Your task to perform on an android device: find photos in the google photos app Image 0: 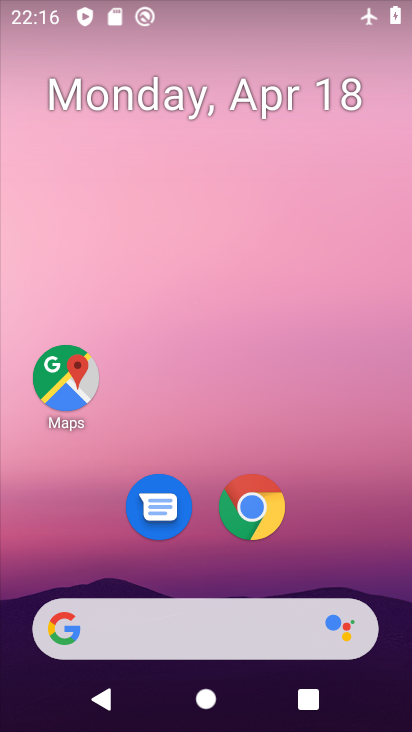
Step 0: drag from (354, 542) to (342, 67)
Your task to perform on an android device: find photos in the google photos app Image 1: 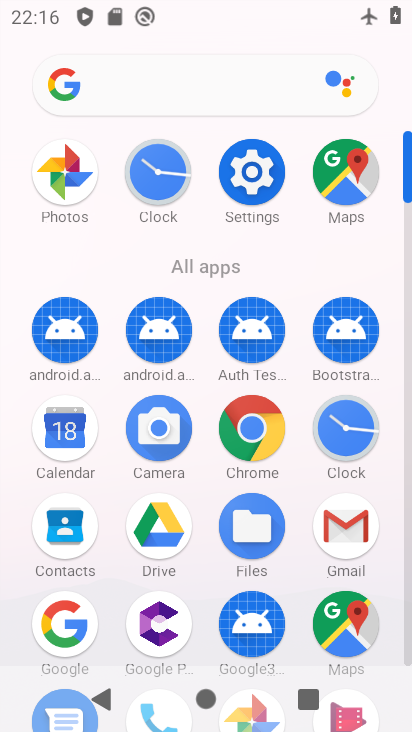
Step 1: drag from (200, 566) to (207, 428)
Your task to perform on an android device: find photos in the google photos app Image 2: 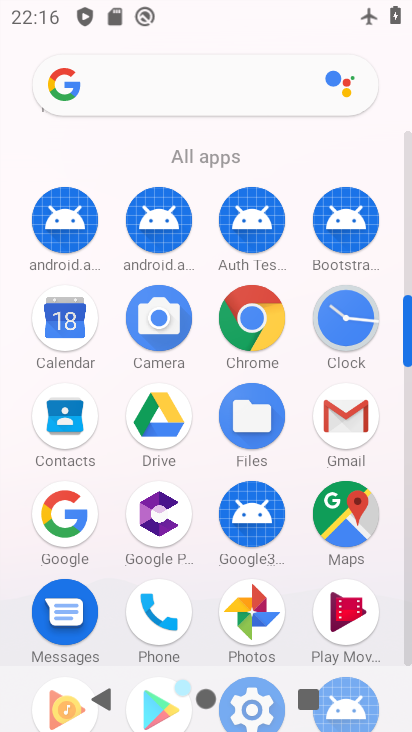
Step 2: click (253, 590)
Your task to perform on an android device: find photos in the google photos app Image 3: 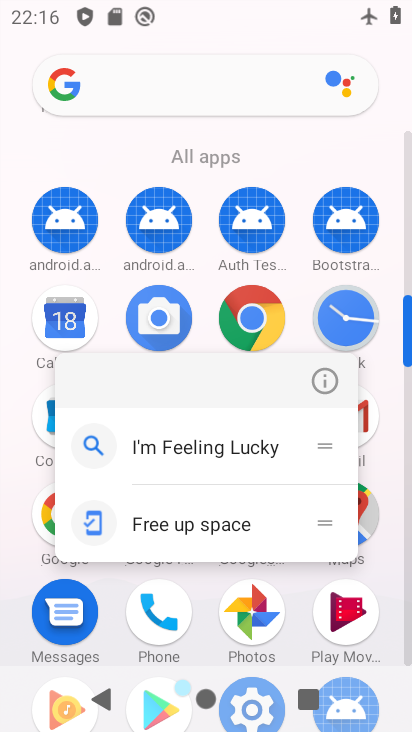
Step 3: click (251, 593)
Your task to perform on an android device: find photos in the google photos app Image 4: 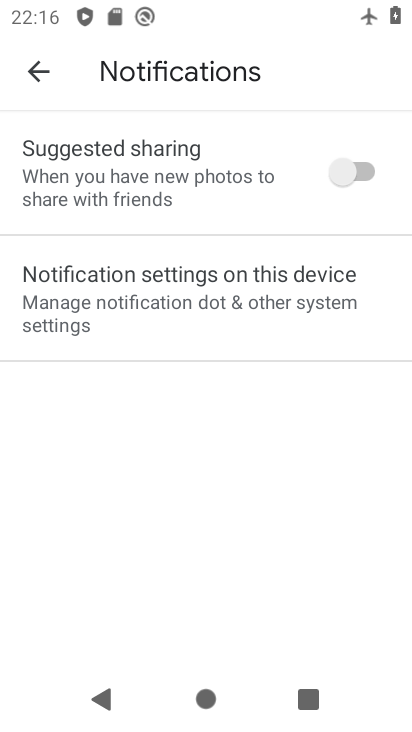
Step 4: click (38, 73)
Your task to perform on an android device: find photos in the google photos app Image 5: 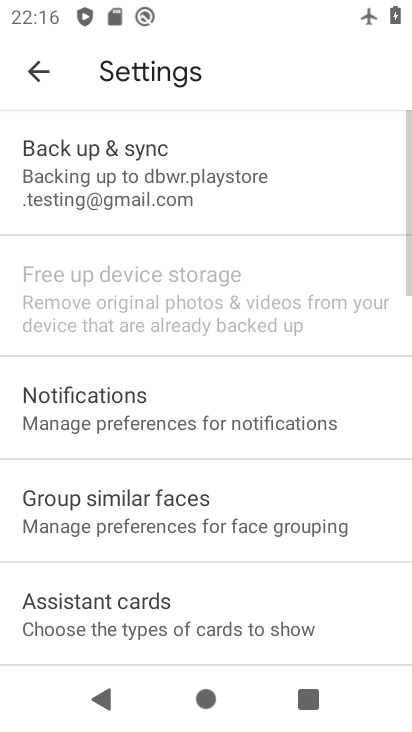
Step 5: click (38, 72)
Your task to perform on an android device: find photos in the google photos app Image 6: 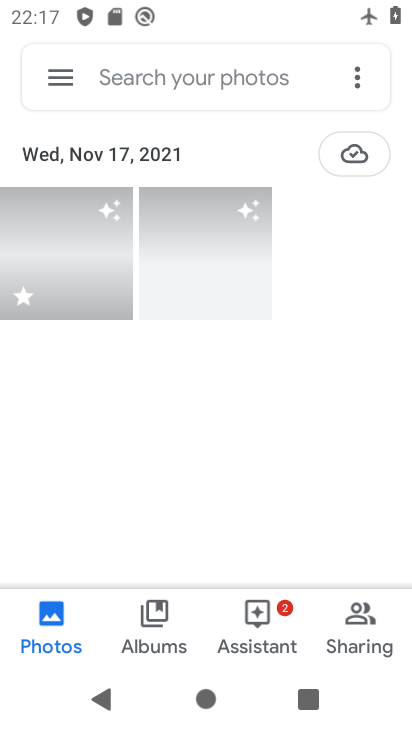
Step 6: click (54, 615)
Your task to perform on an android device: find photos in the google photos app Image 7: 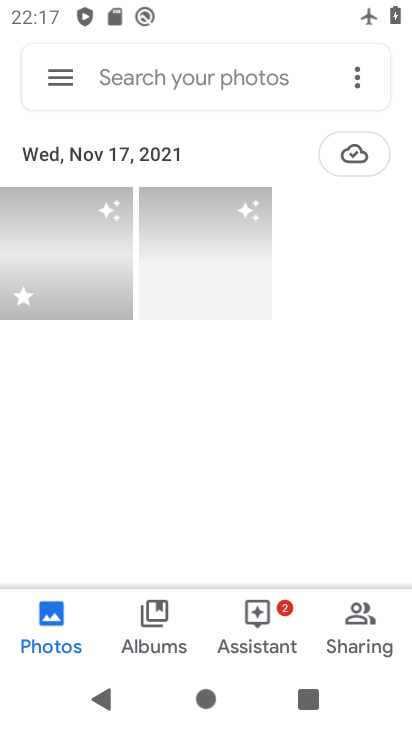
Step 7: click (96, 289)
Your task to perform on an android device: find photos in the google photos app Image 8: 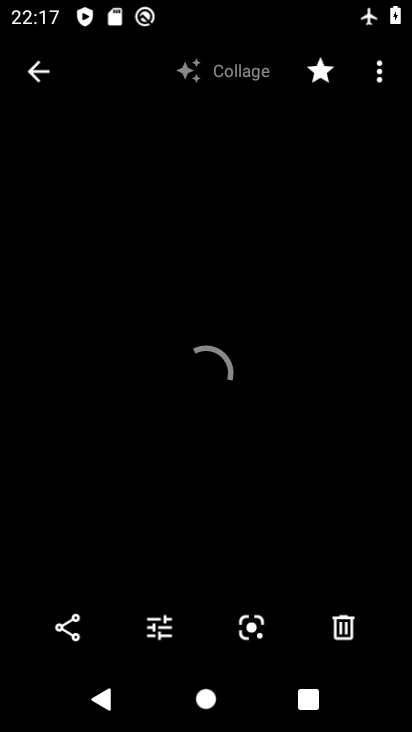
Step 8: task complete